Your task to perform on an android device: turn on bluetooth scan Image 0: 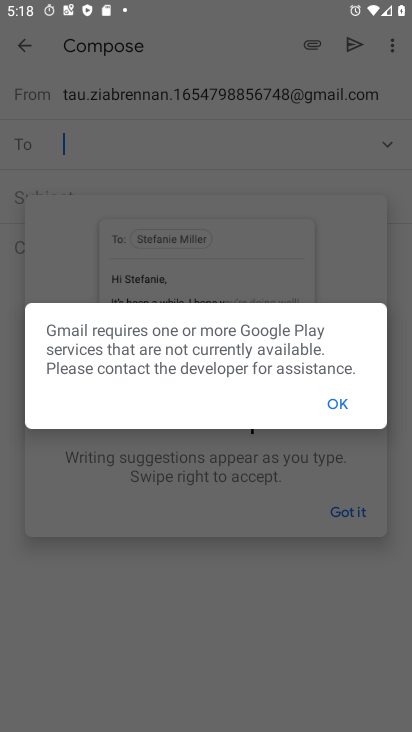
Step 0: press home button
Your task to perform on an android device: turn on bluetooth scan Image 1: 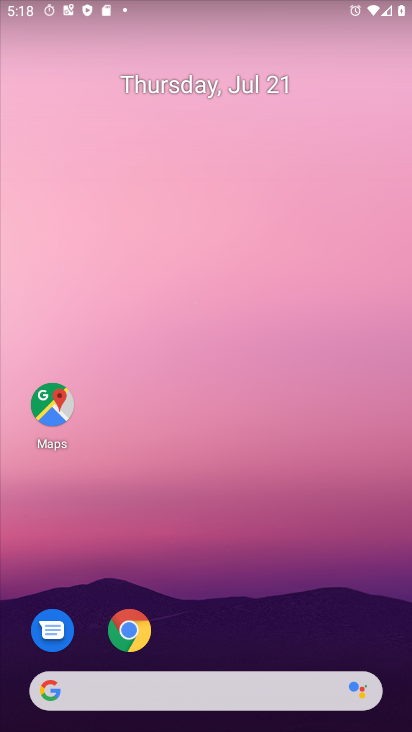
Step 1: drag from (181, 683) to (238, 223)
Your task to perform on an android device: turn on bluetooth scan Image 2: 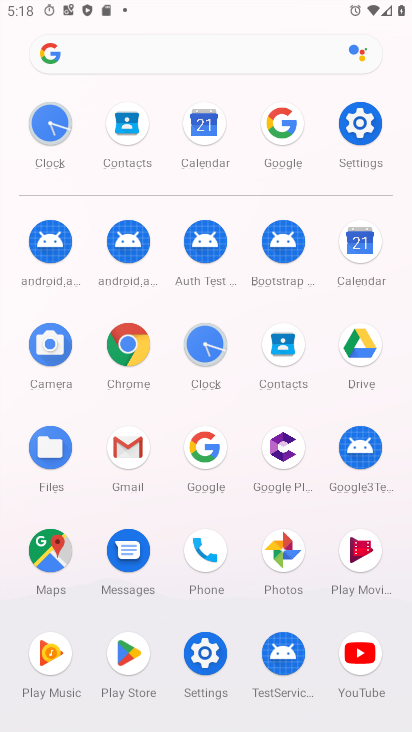
Step 2: click (360, 122)
Your task to perform on an android device: turn on bluetooth scan Image 3: 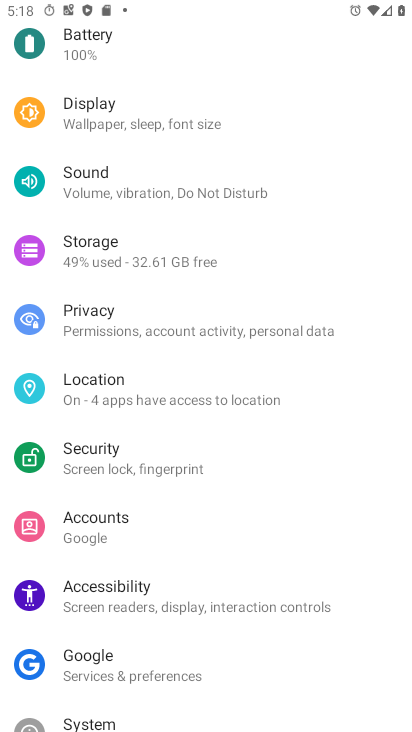
Step 3: click (105, 395)
Your task to perform on an android device: turn on bluetooth scan Image 4: 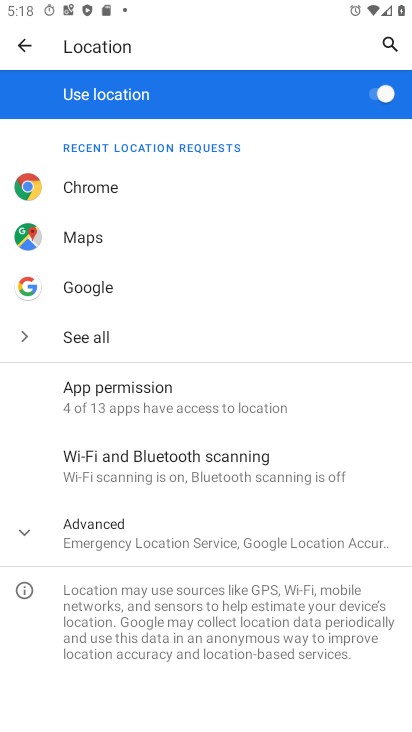
Step 4: click (141, 473)
Your task to perform on an android device: turn on bluetooth scan Image 5: 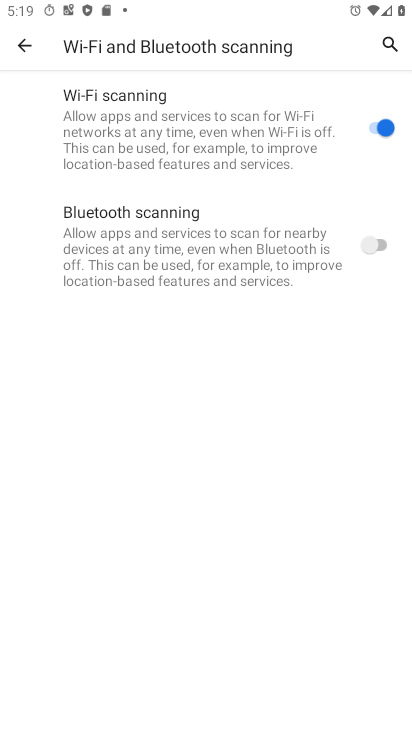
Step 5: click (375, 242)
Your task to perform on an android device: turn on bluetooth scan Image 6: 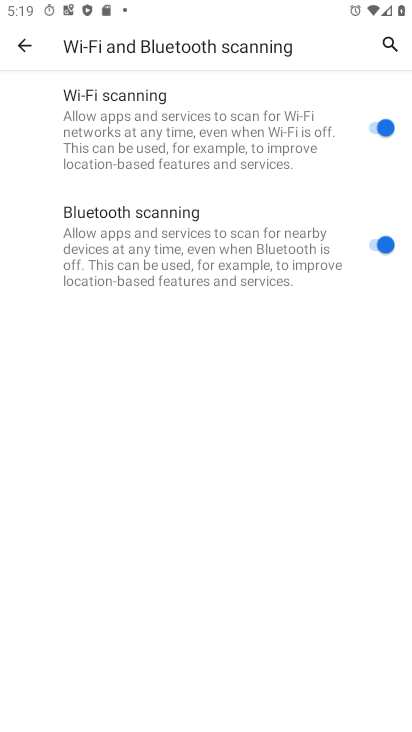
Step 6: task complete